Your task to perform on an android device: turn on javascript in the chrome app Image 0: 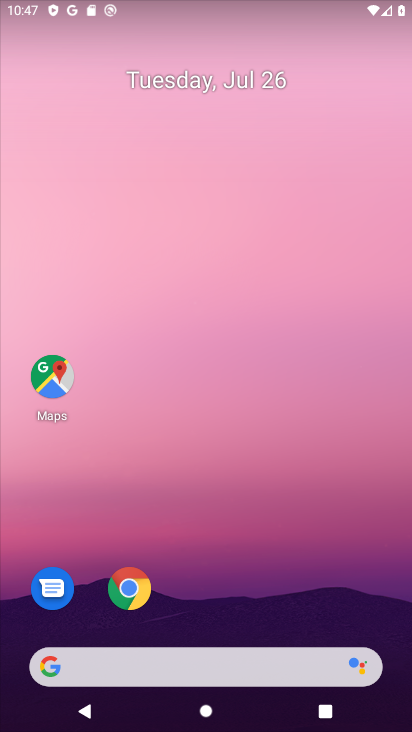
Step 0: press home button
Your task to perform on an android device: turn on javascript in the chrome app Image 1: 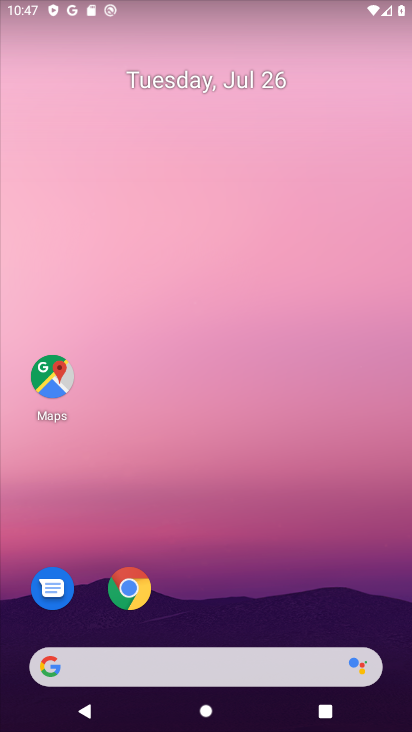
Step 1: click (129, 584)
Your task to perform on an android device: turn on javascript in the chrome app Image 2: 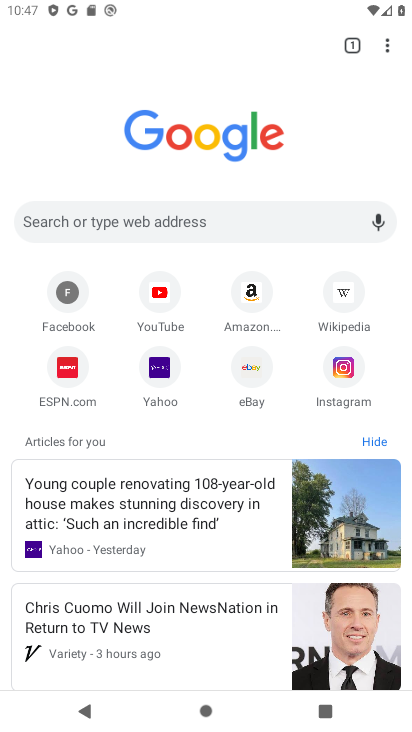
Step 2: click (387, 42)
Your task to perform on an android device: turn on javascript in the chrome app Image 3: 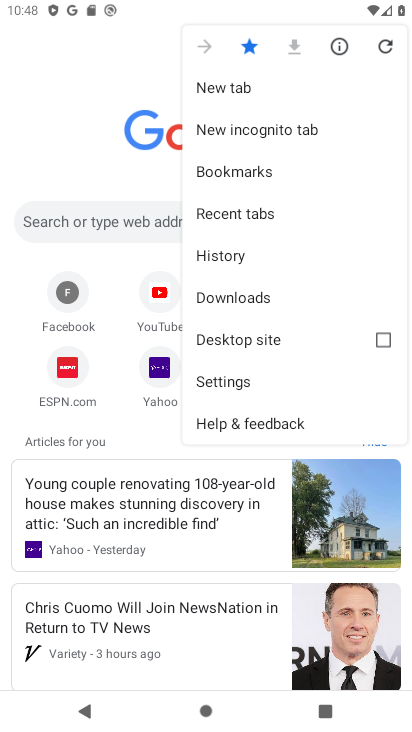
Step 3: click (253, 378)
Your task to perform on an android device: turn on javascript in the chrome app Image 4: 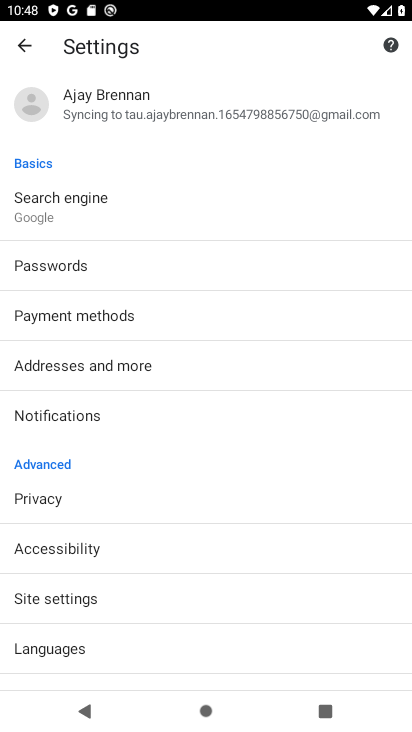
Step 4: click (115, 596)
Your task to perform on an android device: turn on javascript in the chrome app Image 5: 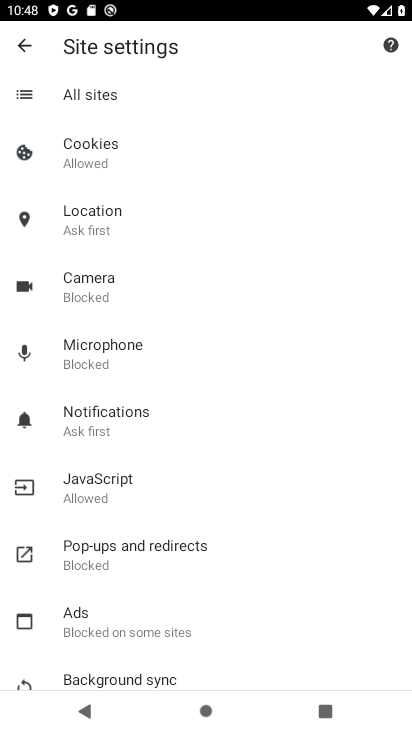
Step 5: click (151, 484)
Your task to perform on an android device: turn on javascript in the chrome app Image 6: 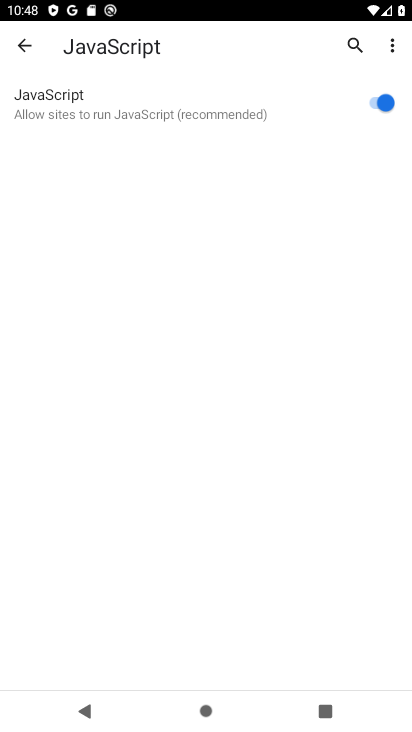
Step 6: task complete